Your task to perform on an android device: open sync settings in chrome Image 0: 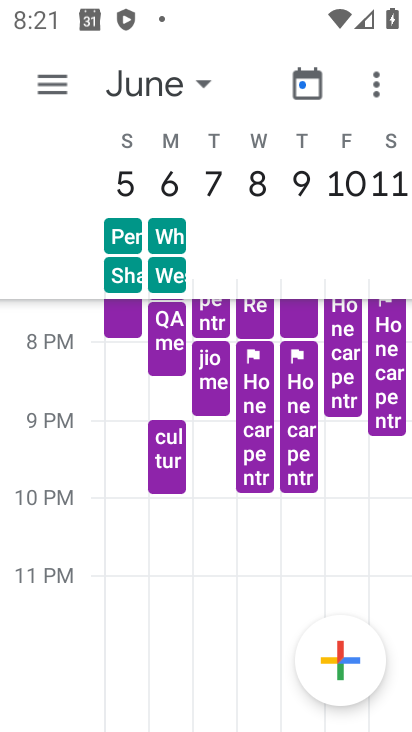
Step 0: press home button
Your task to perform on an android device: open sync settings in chrome Image 1: 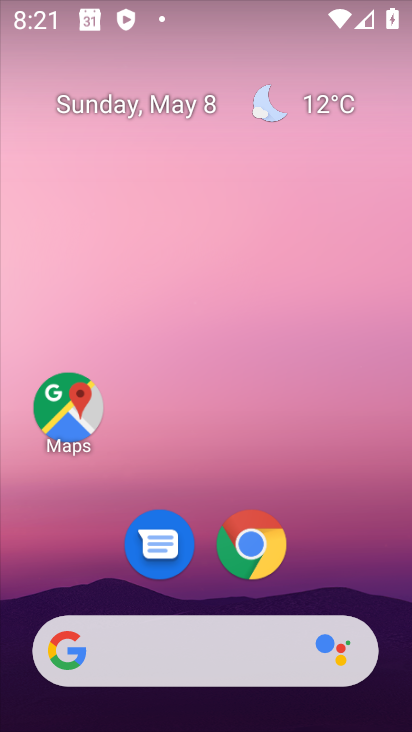
Step 1: click (253, 546)
Your task to perform on an android device: open sync settings in chrome Image 2: 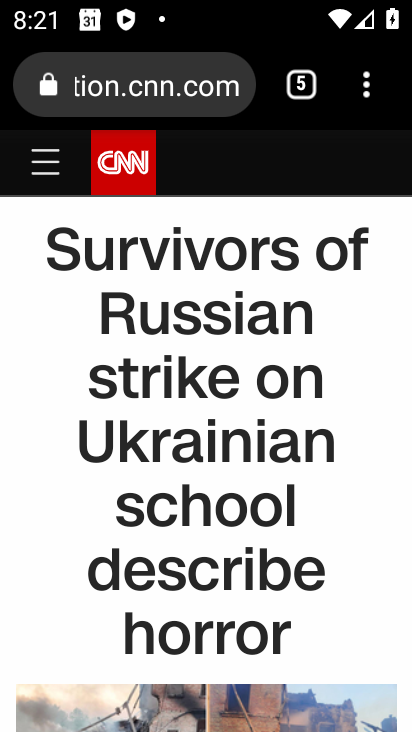
Step 2: click (367, 85)
Your task to perform on an android device: open sync settings in chrome Image 3: 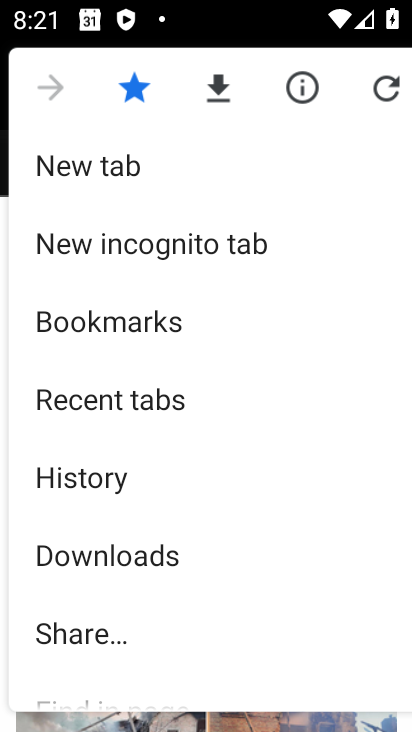
Step 3: drag from (182, 205) to (166, 108)
Your task to perform on an android device: open sync settings in chrome Image 4: 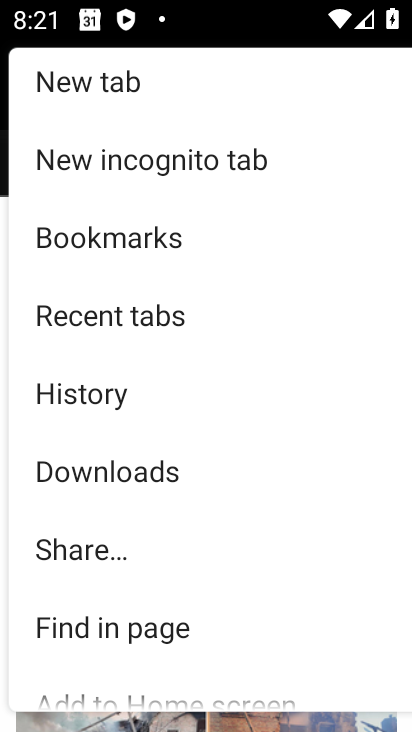
Step 4: drag from (201, 534) to (167, 283)
Your task to perform on an android device: open sync settings in chrome Image 5: 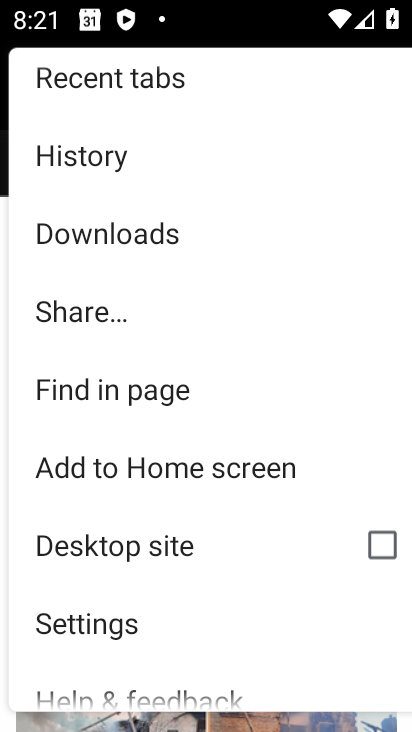
Step 5: click (93, 623)
Your task to perform on an android device: open sync settings in chrome Image 6: 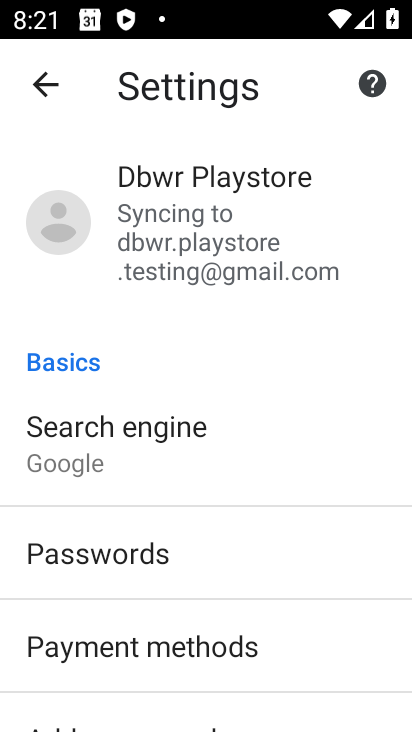
Step 6: click (170, 185)
Your task to perform on an android device: open sync settings in chrome Image 7: 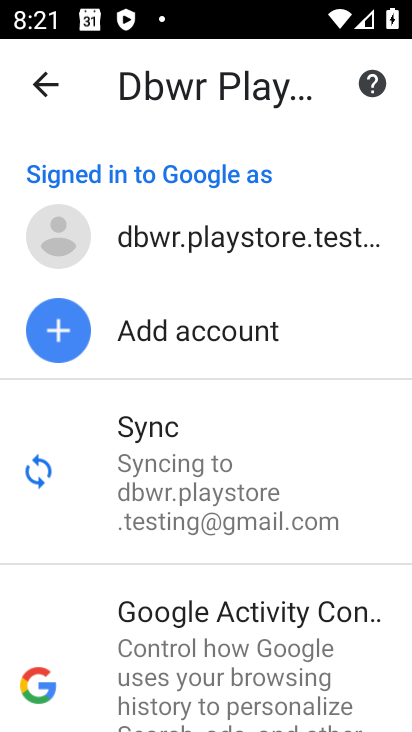
Step 7: click (175, 475)
Your task to perform on an android device: open sync settings in chrome Image 8: 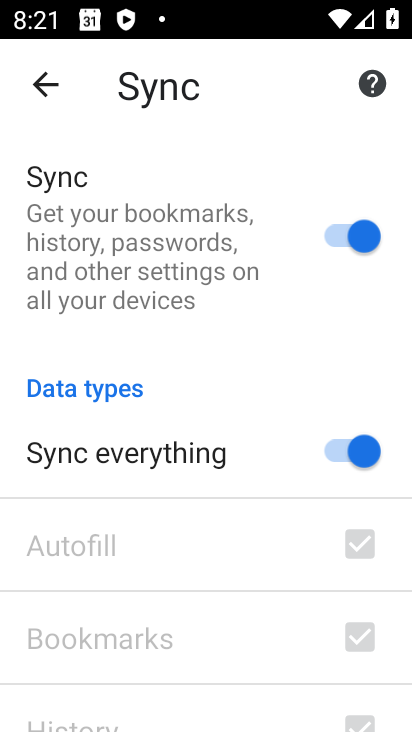
Step 8: task complete